Your task to perform on an android device: uninstall "Facebook Messenger" Image 0: 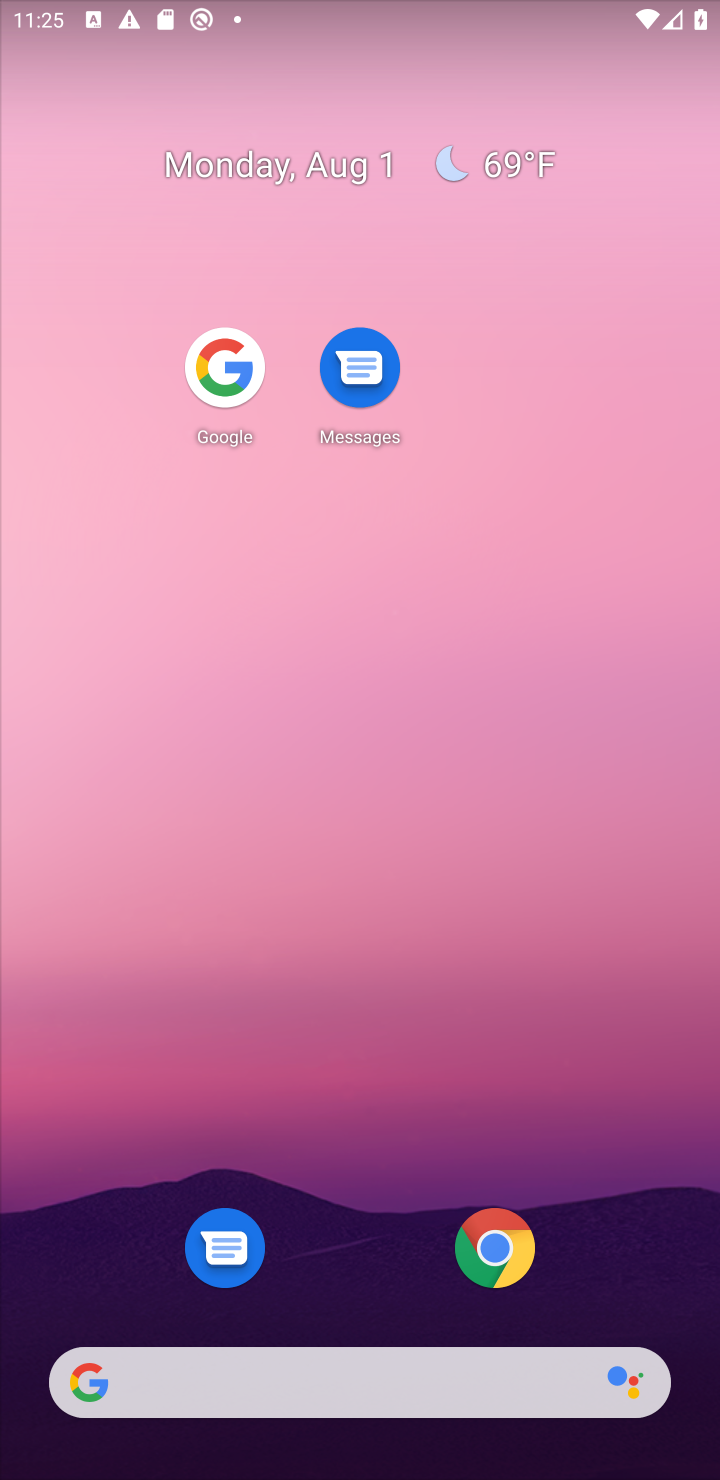
Step 0: drag from (622, 926) to (664, 228)
Your task to perform on an android device: uninstall "Facebook Messenger" Image 1: 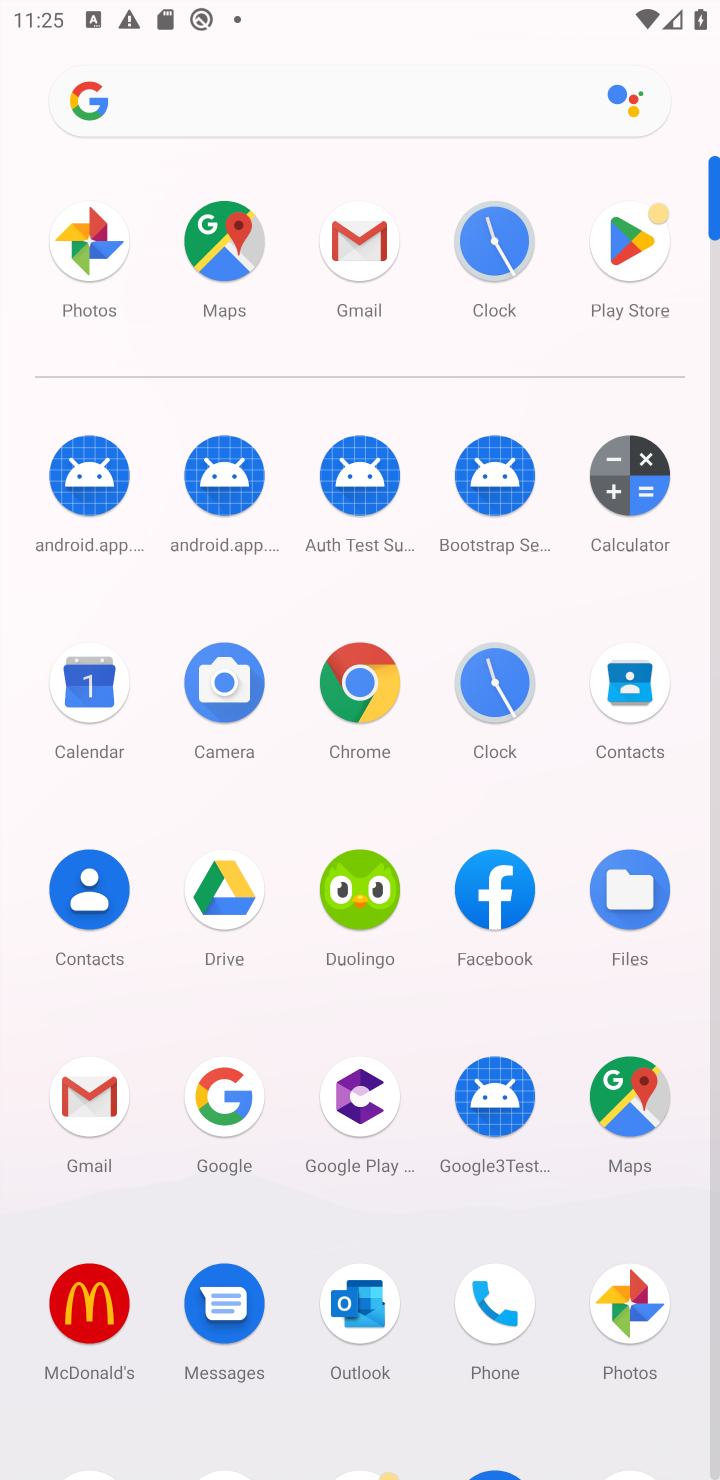
Step 1: drag from (418, 1206) to (478, 404)
Your task to perform on an android device: uninstall "Facebook Messenger" Image 2: 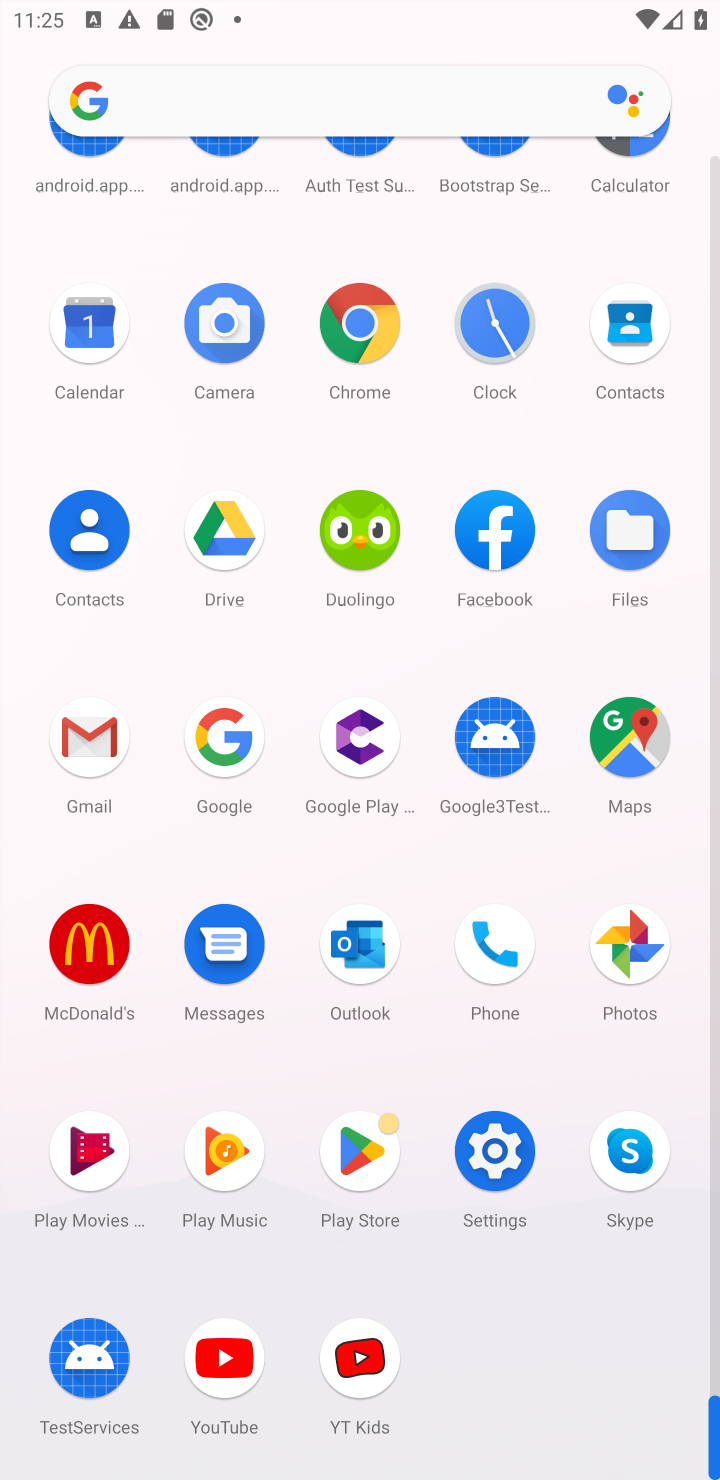
Step 2: click (346, 1146)
Your task to perform on an android device: uninstall "Facebook Messenger" Image 3: 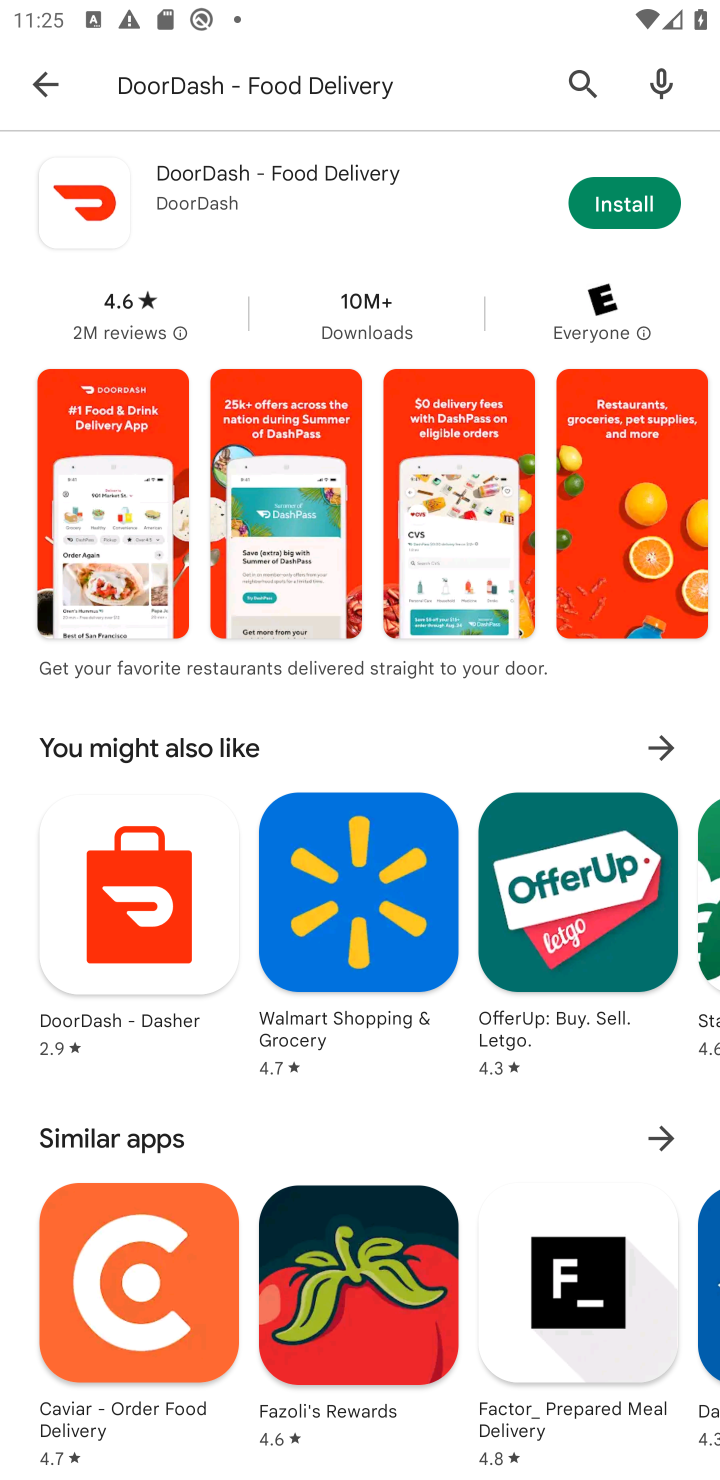
Step 3: click (335, 91)
Your task to perform on an android device: uninstall "Facebook Messenger" Image 4: 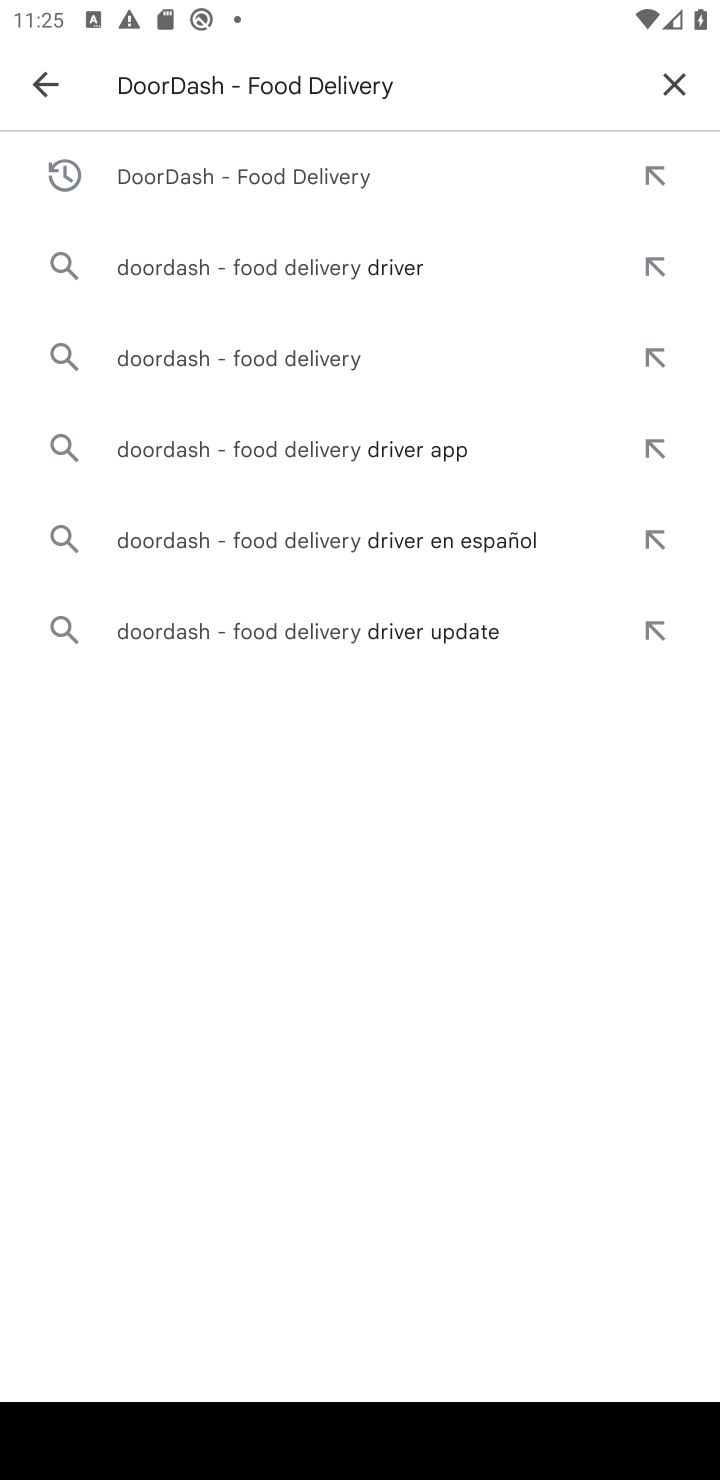
Step 4: click (678, 73)
Your task to perform on an android device: uninstall "Facebook Messenger" Image 5: 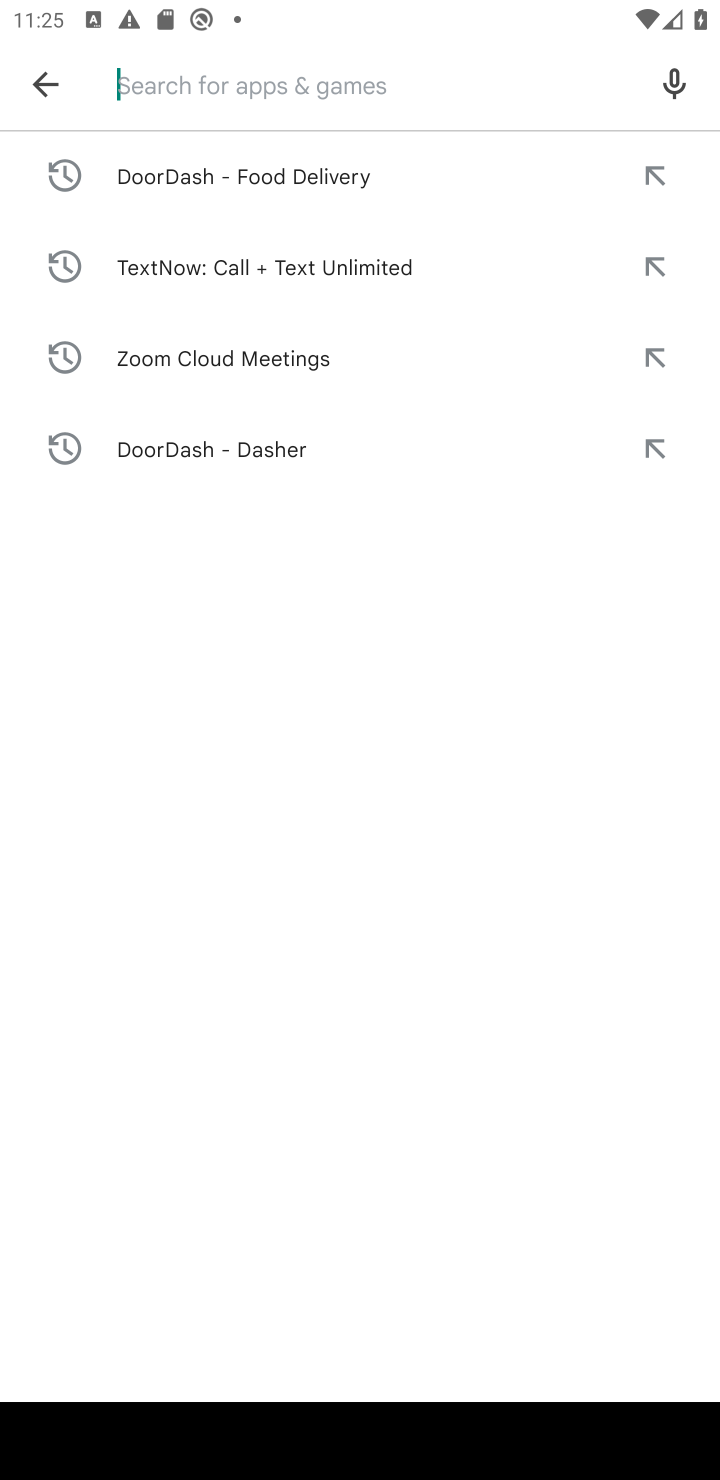
Step 5: type "Facebook Messenger"
Your task to perform on an android device: uninstall "Facebook Messenger" Image 6: 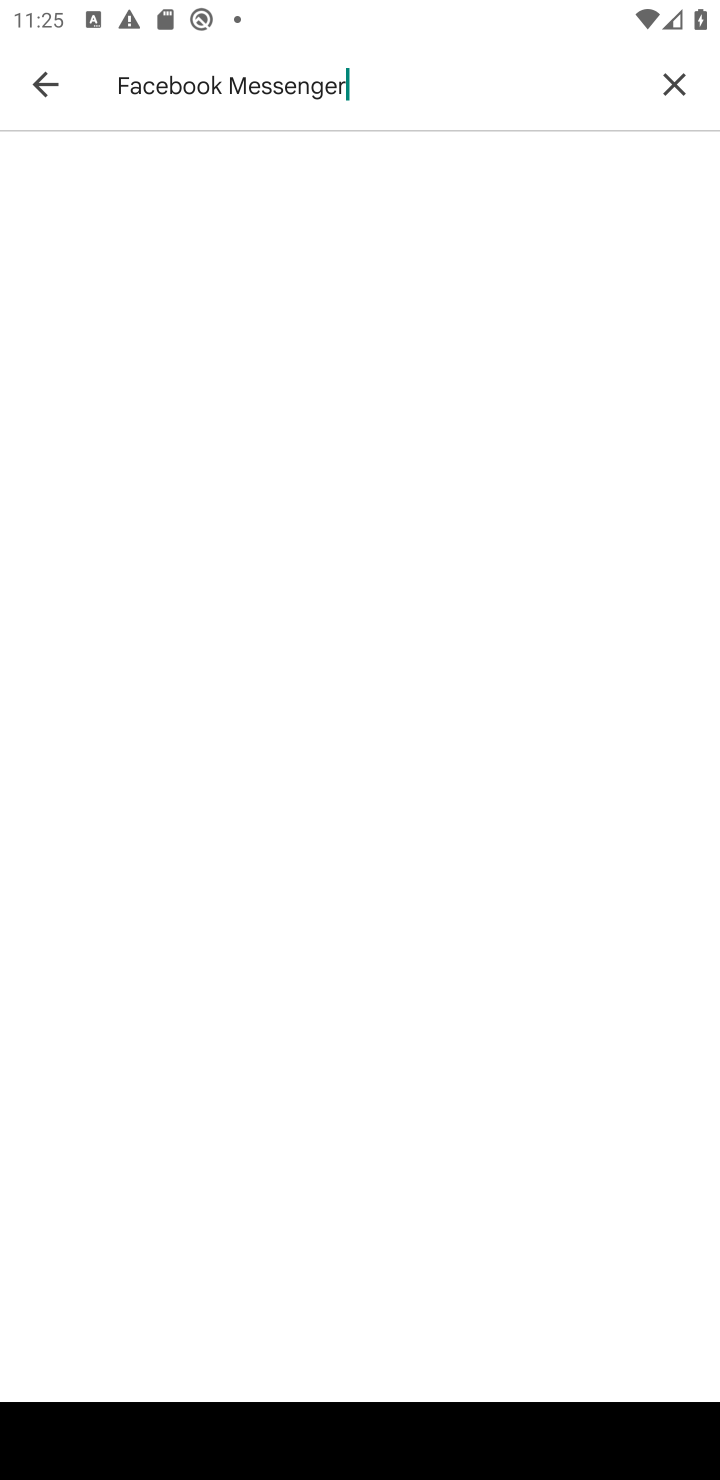
Step 6: press enter
Your task to perform on an android device: uninstall "Facebook Messenger" Image 7: 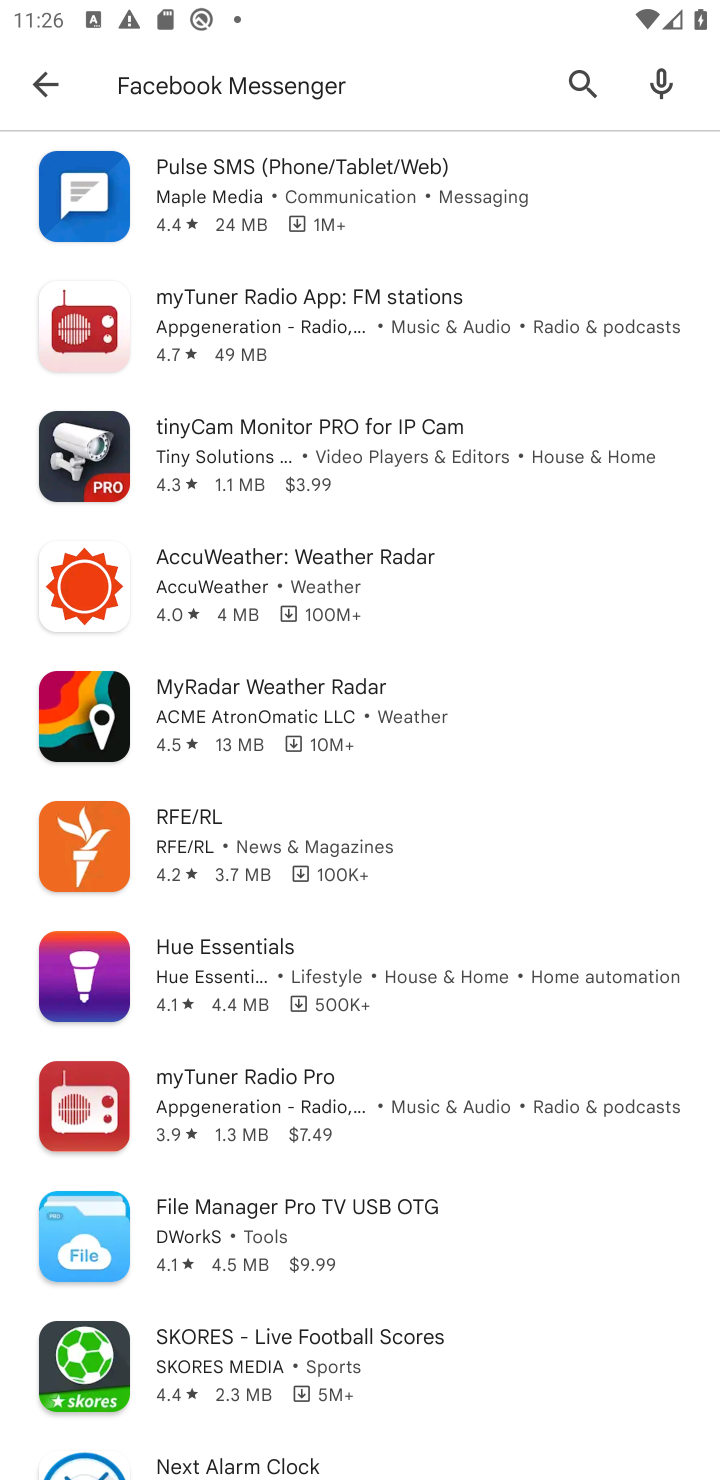
Step 7: task complete